Your task to perform on an android device: Open calendar and show me the third week of next month Image 0: 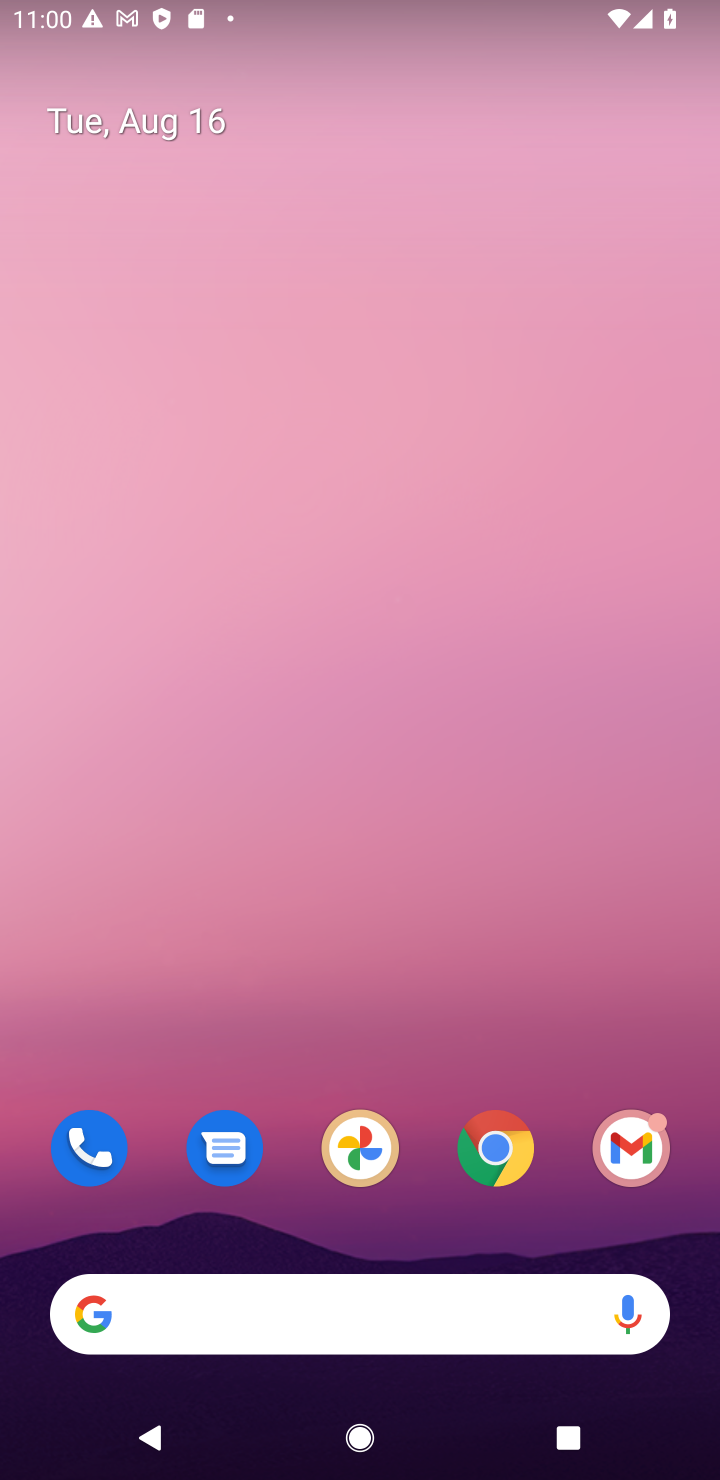
Step 0: press home button
Your task to perform on an android device: Open calendar and show me the third week of next month Image 1: 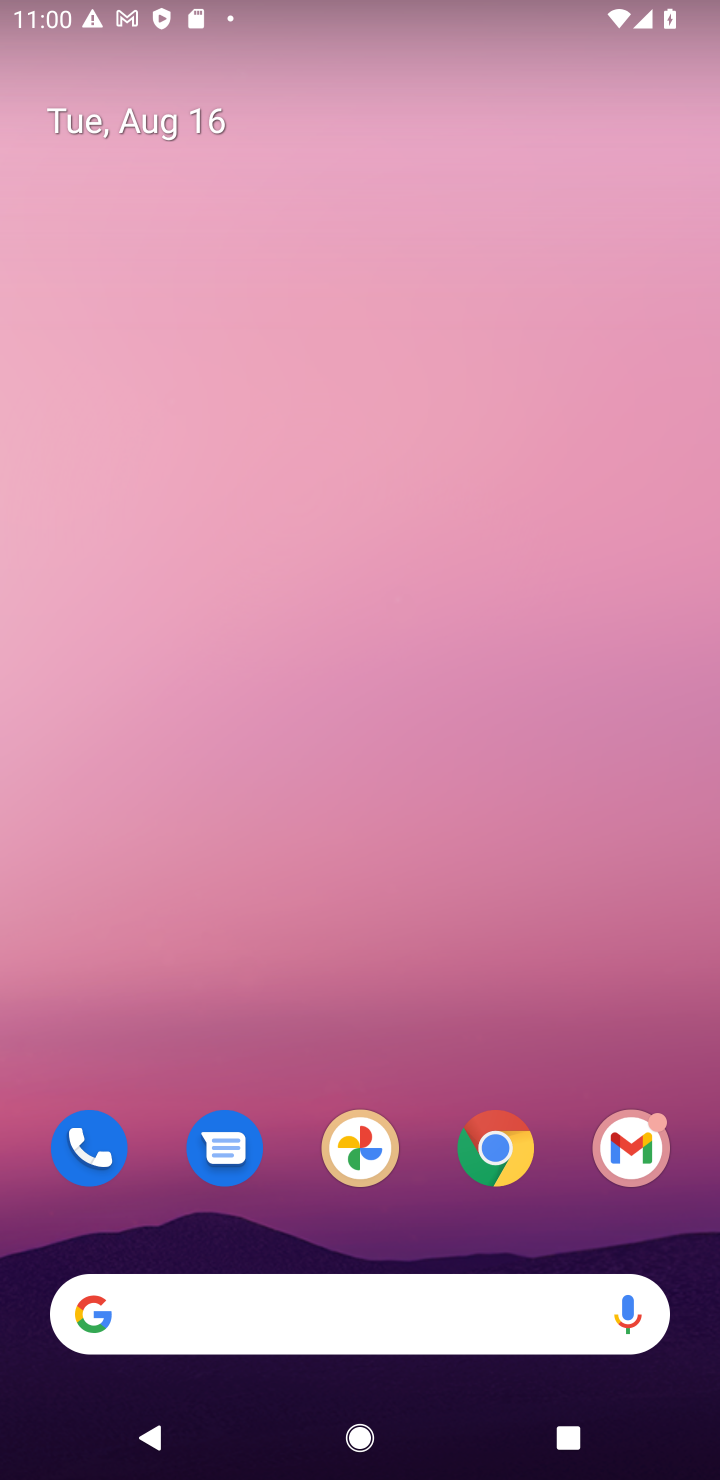
Step 1: drag from (597, 910) to (534, 69)
Your task to perform on an android device: Open calendar and show me the third week of next month Image 2: 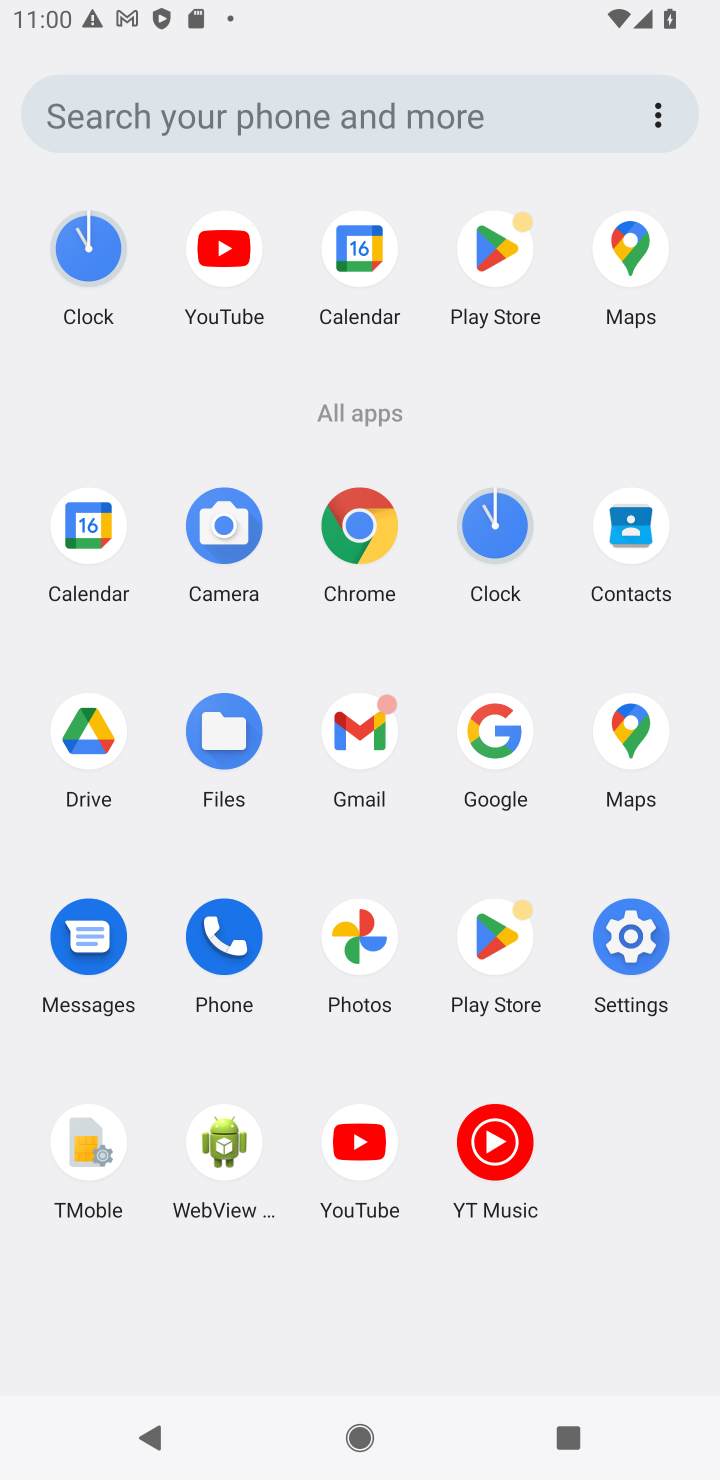
Step 2: click (100, 532)
Your task to perform on an android device: Open calendar and show me the third week of next month Image 3: 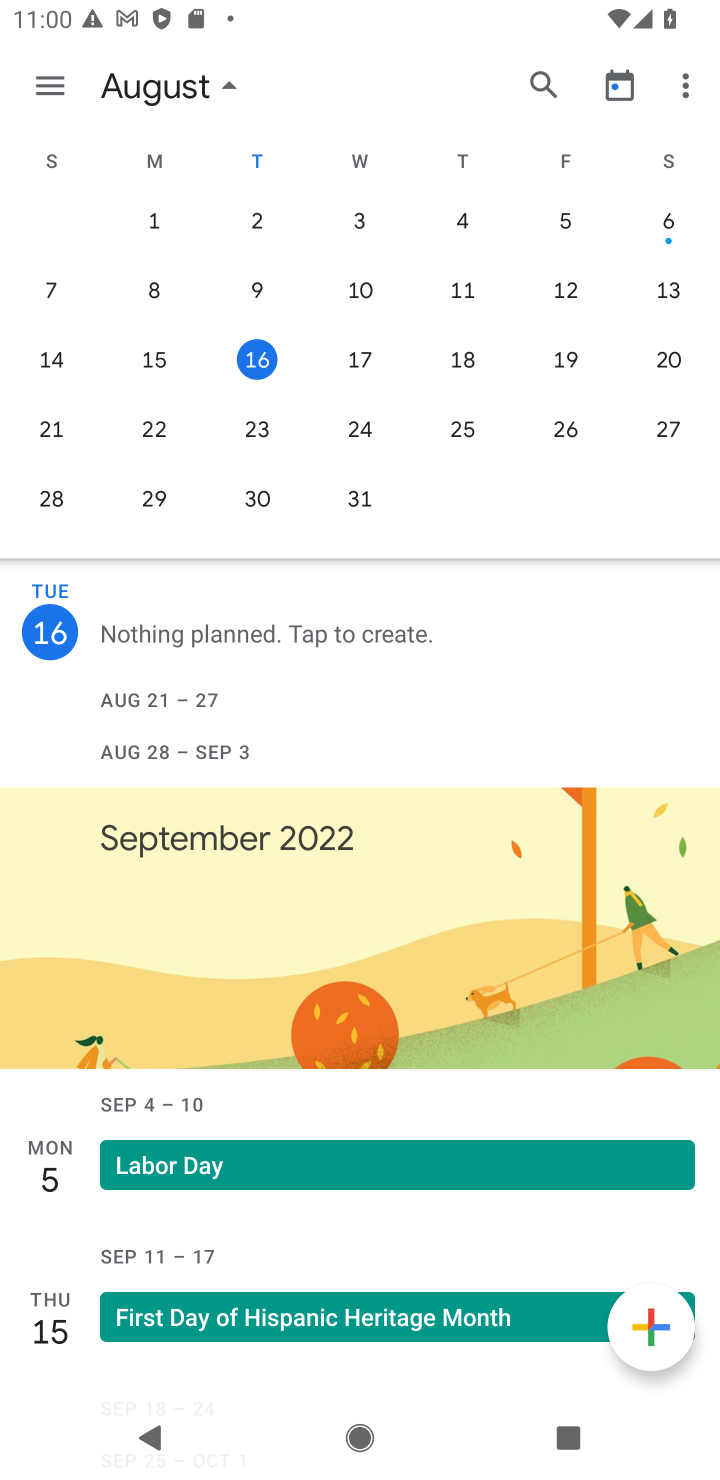
Step 3: drag from (675, 342) to (0, 321)
Your task to perform on an android device: Open calendar and show me the third week of next month Image 4: 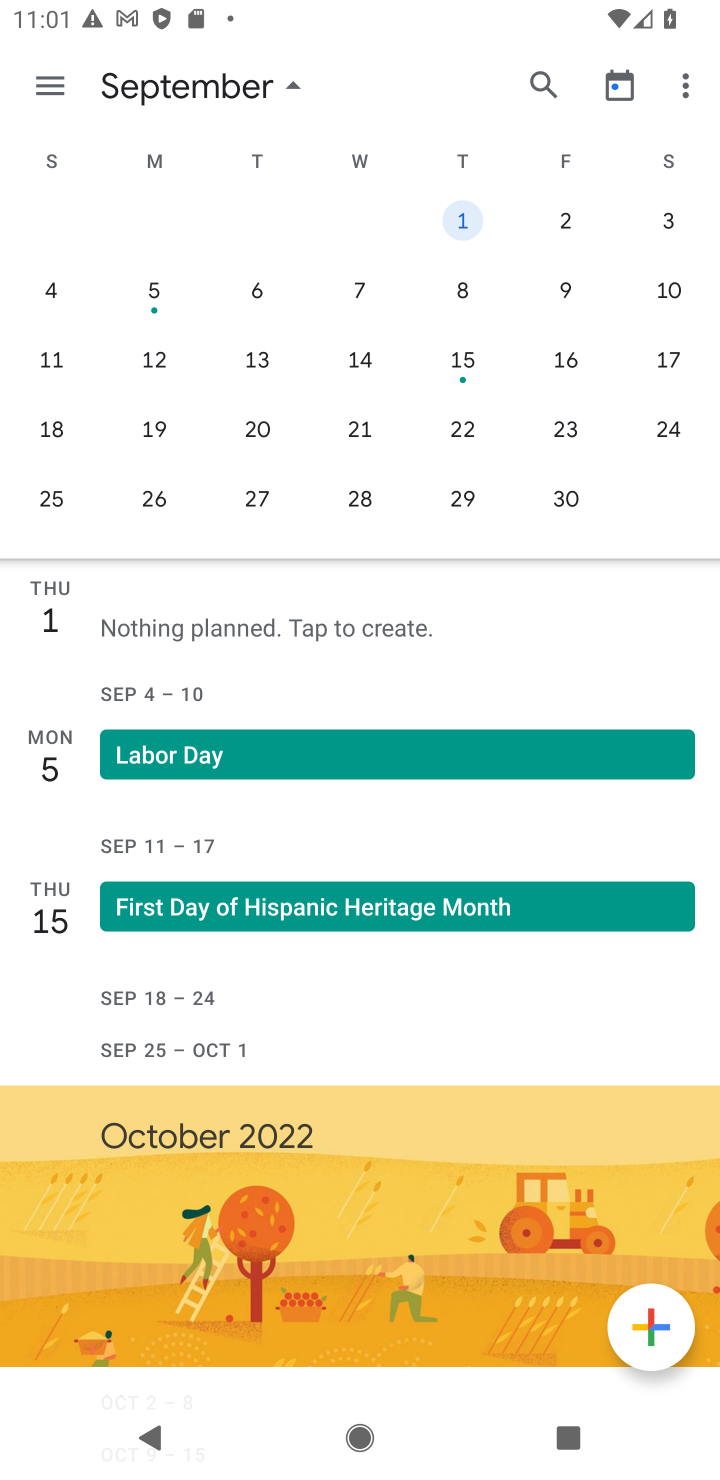
Step 4: click (454, 356)
Your task to perform on an android device: Open calendar and show me the third week of next month Image 5: 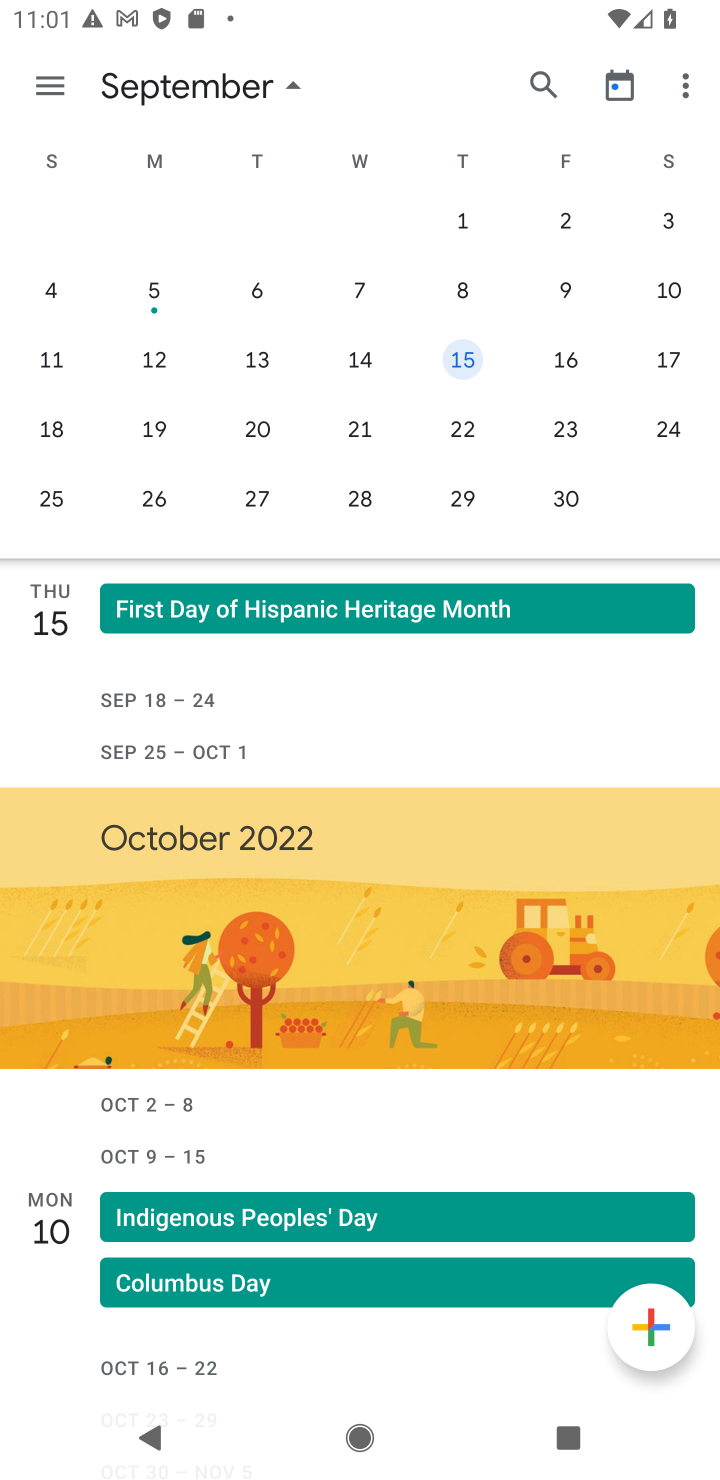
Step 5: task complete